Your task to perform on an android device: turn on data saver in the chrome app Image 0: 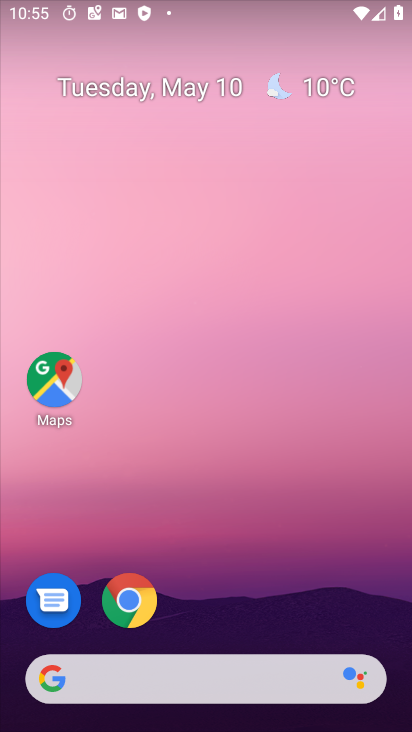
Step 0: drag from (253, 539) to (252, 50)
Your task to perform on an android device: turn on data saver in the chrome app Image 1: 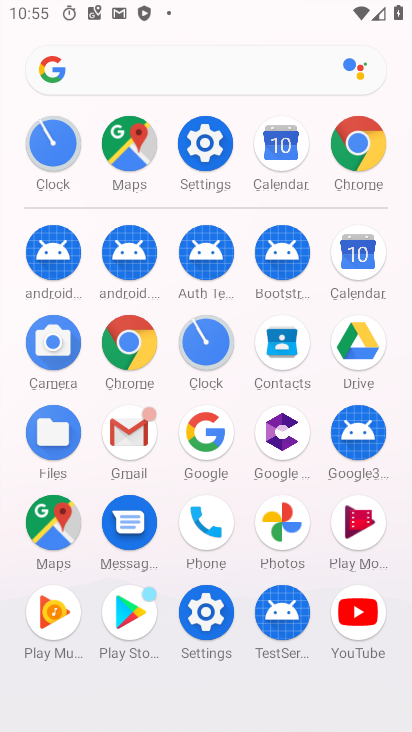
Step 1: click (357, 140)
Your task to perform on an android device: turn on data saver in the chrome app Image 2: 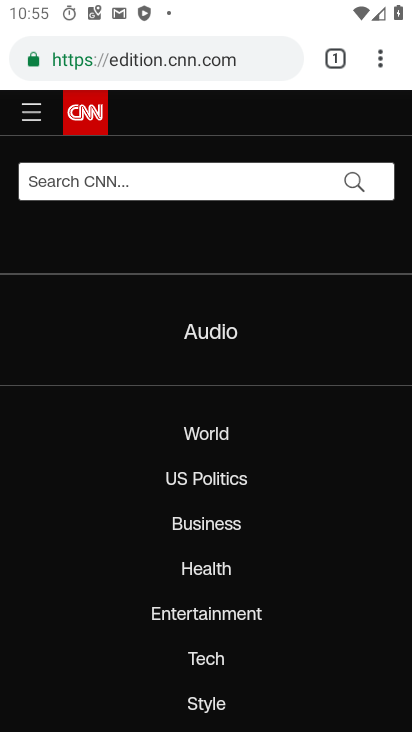
Step 2: drag from (377, 60) to (177, 618)
Your task to perform on an android device: turn on data saver in the chrome app Image 3: 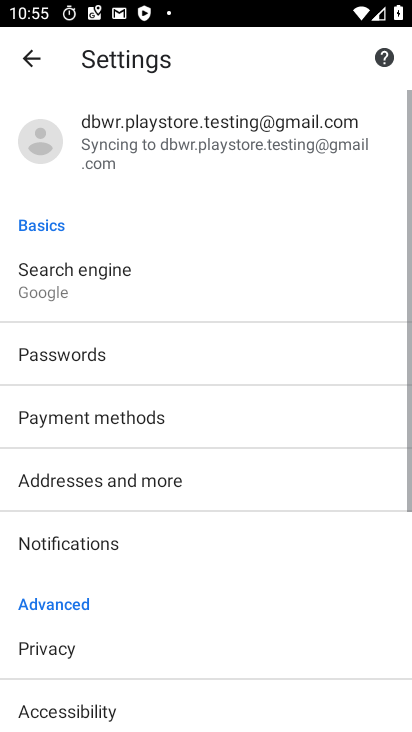
Step 3: drag from (195, 574) to (211, 215)
Your task to perform on an android device: turn on data saver in the chrome app Image 4: 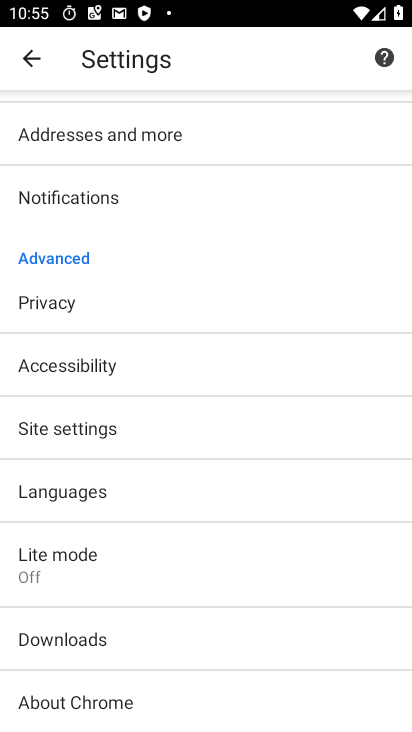
Step 4: click (123, 542)
Your task to perform on an android device: turn on data saver in the chrome app Image 5: 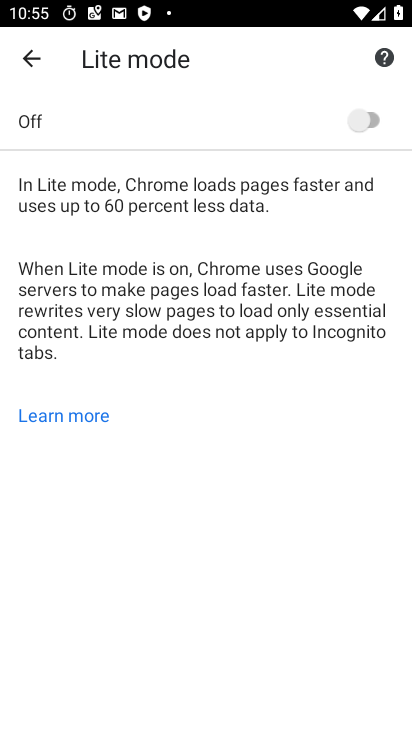
Step 5: click (363, 110)
Your task to perform on an android device: turn on data saver in the chrome app Image 6: 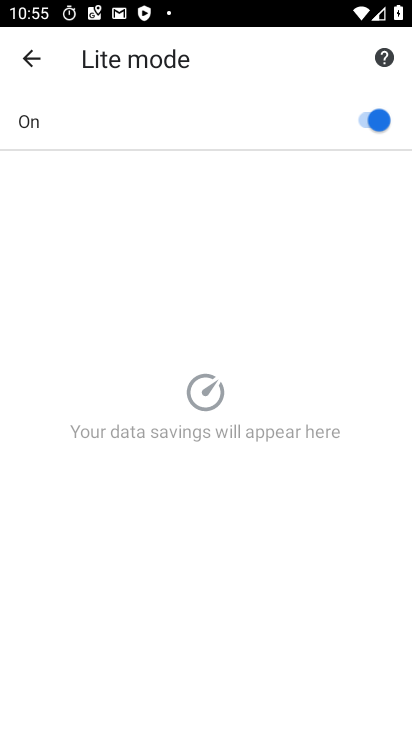
Step 6: task complete